Your task to perform on an android device: Search for pizza restaurants on Maps Image 0: 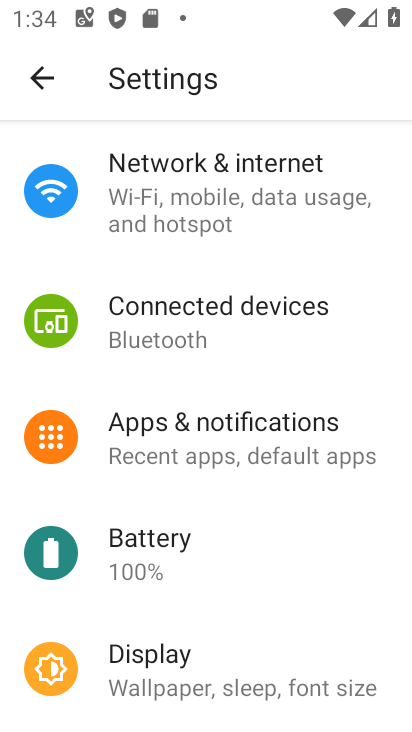
Step 0: press home button
Your task to perform on an android device: Search for pizza restaurants on Maps Image 1: 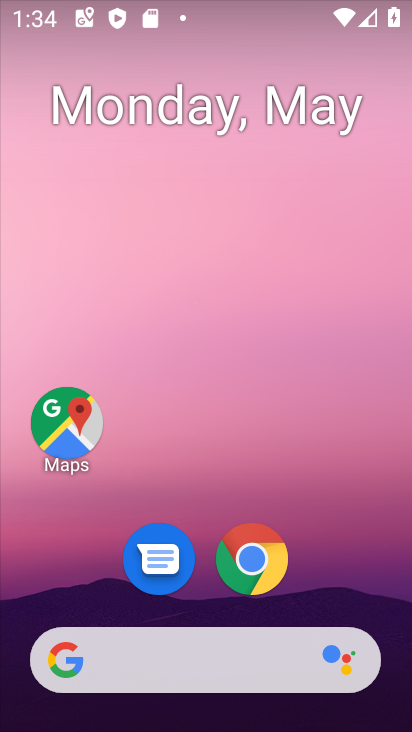
Step 1: click (78, 425)
Your task to perform on an android device: Search for pizza restaurants on Maps Image 2: 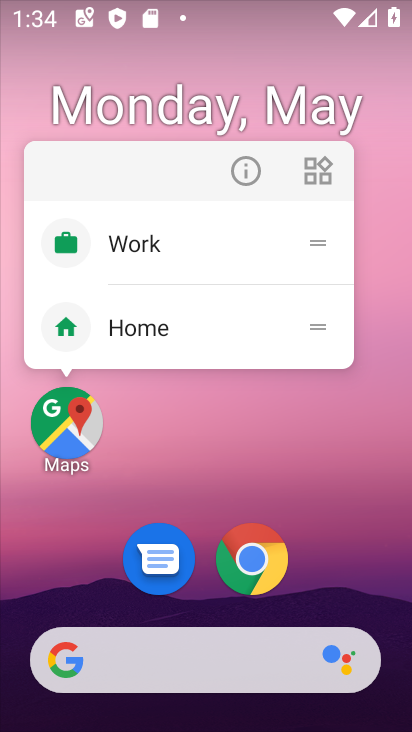
Step 2: click (78, 425)
Your task to perform on an android device: Search for pizza restaurants on Maps Image 3: 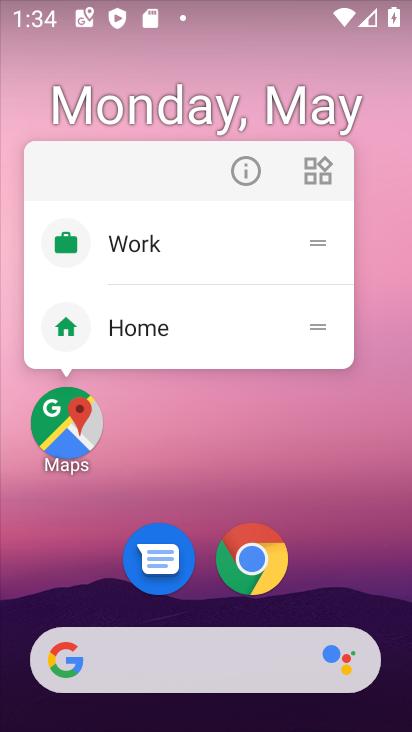
Step 3: click (78, 425)
Your task to perform on an android device: Search for pizza restaurants on Maps Image 4: 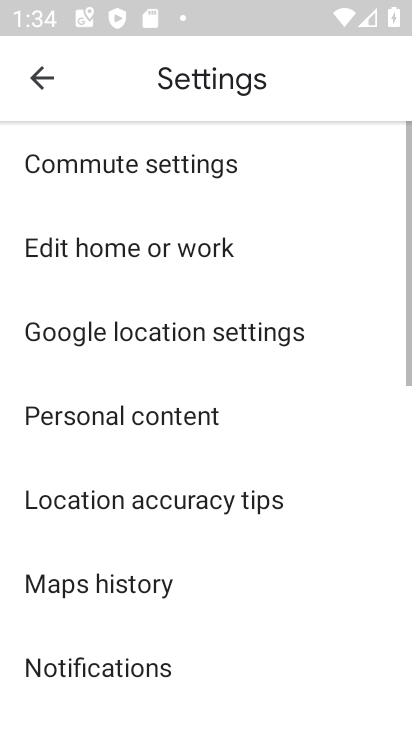
Step 4: click (44, 79)
Your task to perform on an android device: Search for pizza restaurants on Maps Image 5: 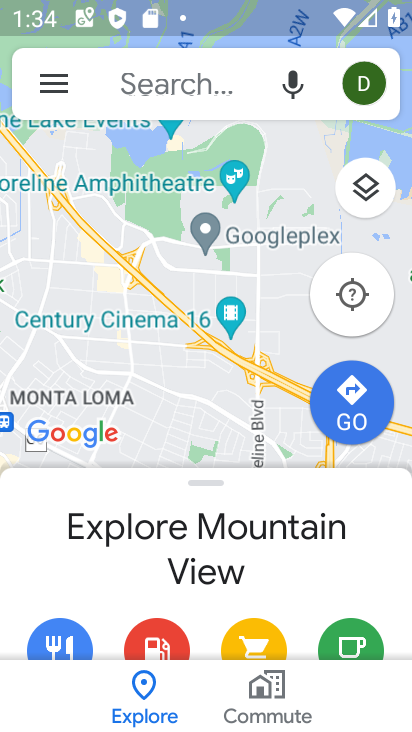
Step 5: click (154, 78)
Your task to perform on an android device: Search for pizza restaurants on Maps Image 6: 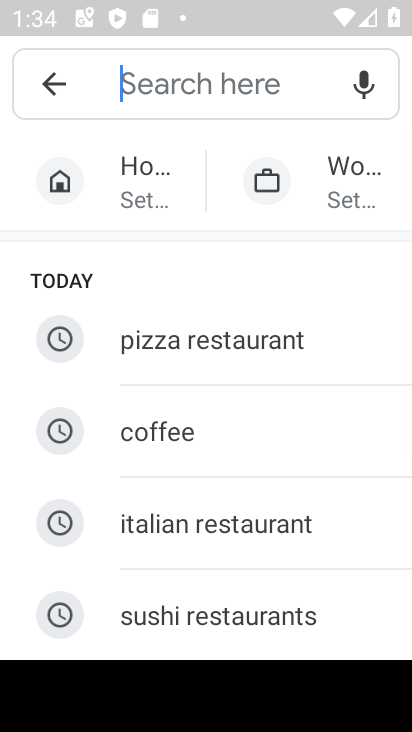
Step 6: click (194, 354)
Your task to perform on an android device: Search for pizza restaurants on Maps Image 7: 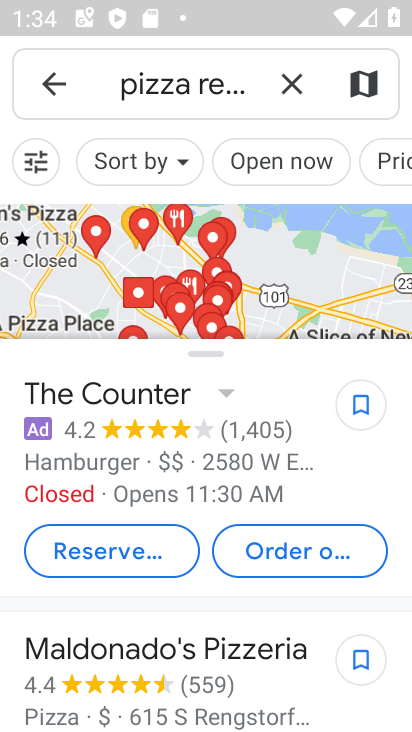
Step 7: task complete